Your task to perform on an android device: When is my next meeting? Image 0: 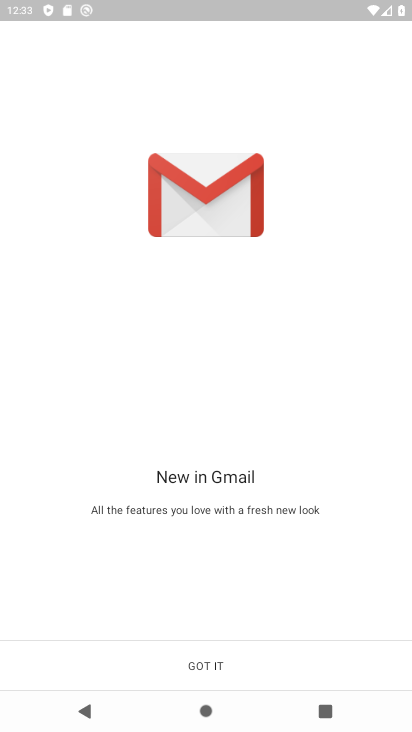
Step 0: drag from (0, 0) to (109, 5)
Your task to perform on an android device: When is my next meeting? Image 1: 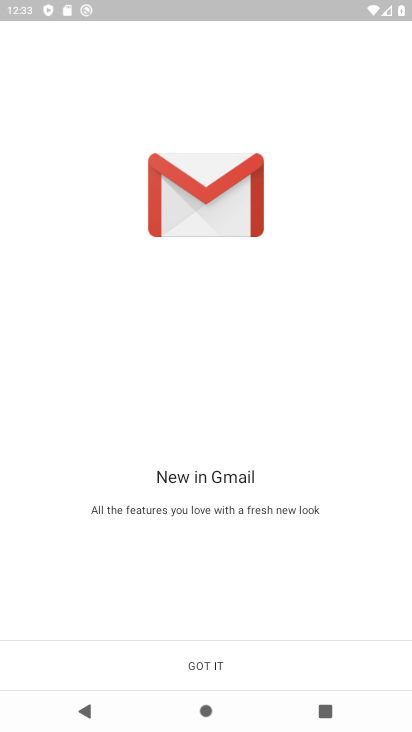
Step 1: press home button
Your task to perform on an android device: When is my next meeting? Image 2: 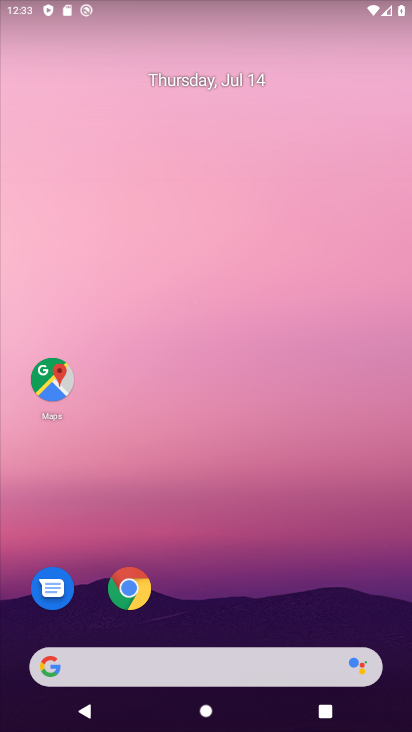
Step 2: drag from (241, 717) to (226, 296)
Your task to perform on an android device: When is my next meeting? Image 3: 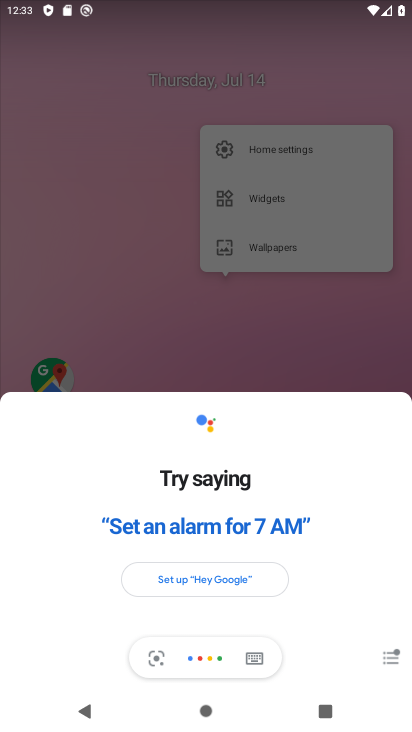
Step 3: click (263, 249)
Your task to perform on an android device: When is my next meeting? Image 4: 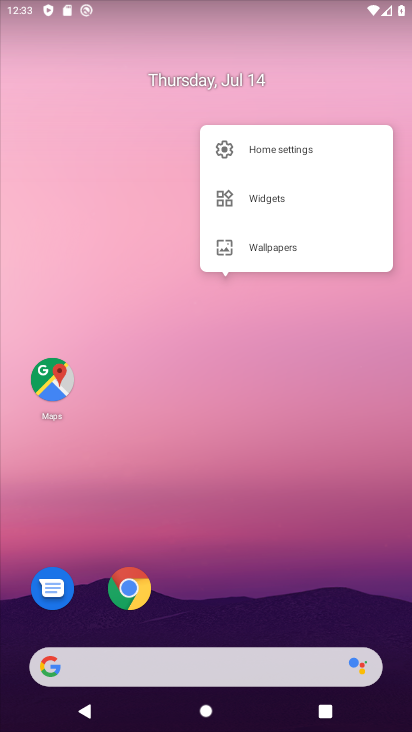
Step 4: drag from (259, 699) to (322, 39)
Your task to perform on an android device: When is my next meeting? Image 5: 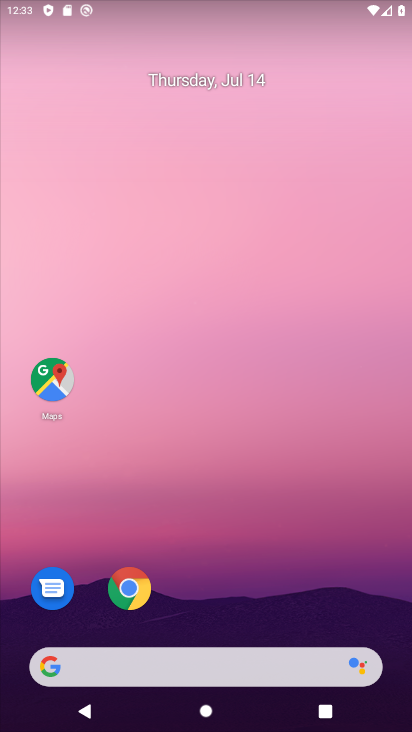
Step 5: drag from (253, 707) to (407, 112)
Your task to perform on an android device: When is my next meeting? Image 6: 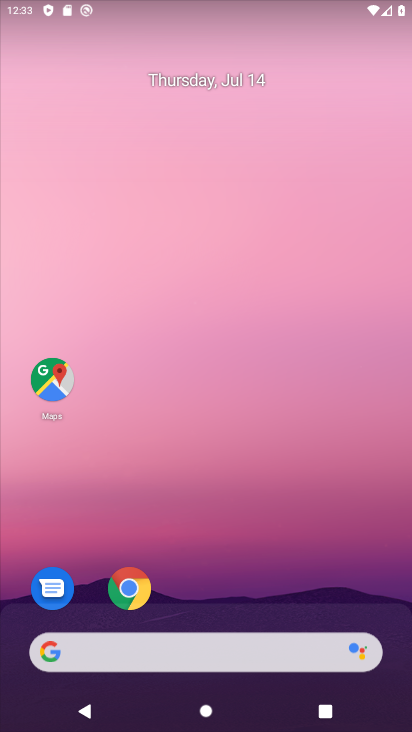
Step 6: drag from (262, 711) to (217, 26)
Your task to perform on an android device: When is my next meeting? Image 7: 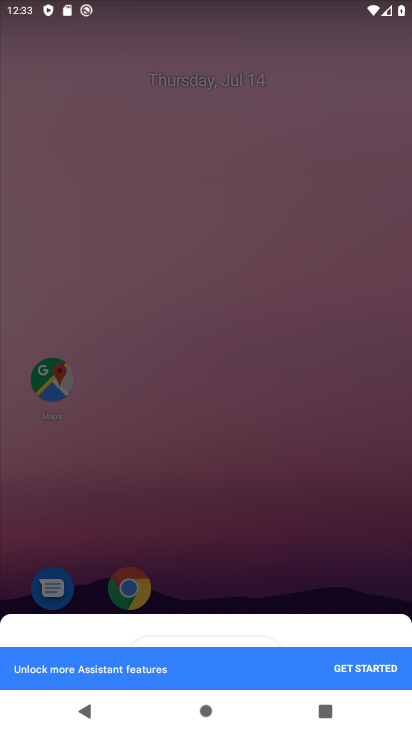
Step 7: press home button
Your task to perform on an android device: When is my next meeting? Image 8: 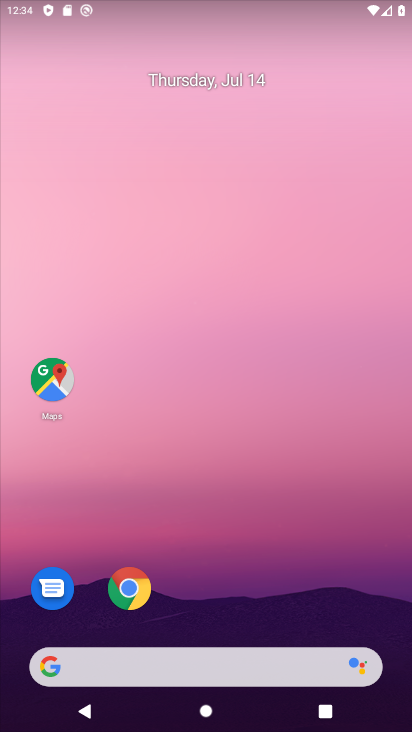
Step 8: drag from (249, 703) to (265, 68)
Your task to perform on an android device: When is my next meeting? Image 9: 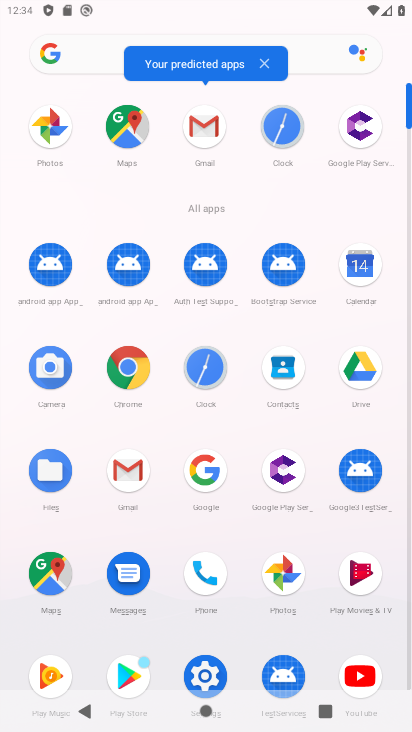
Step 9: click (366, 268)
Your task to perform on an android device: When is my next meeting? Image 10: 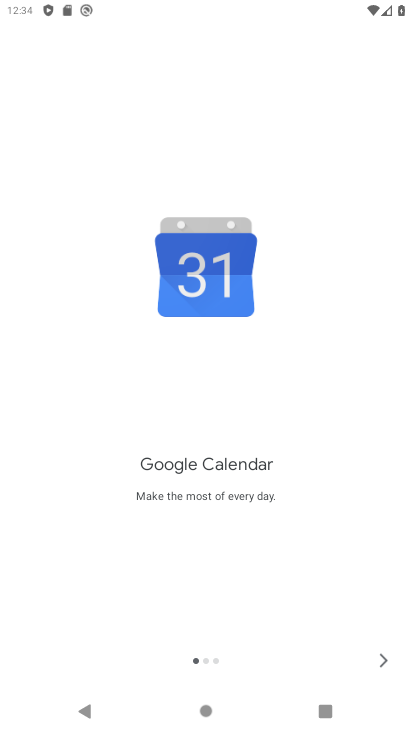
Step 10: click (383, 667)
Your task to perform on an android device: When is my next meeting? Image 11: 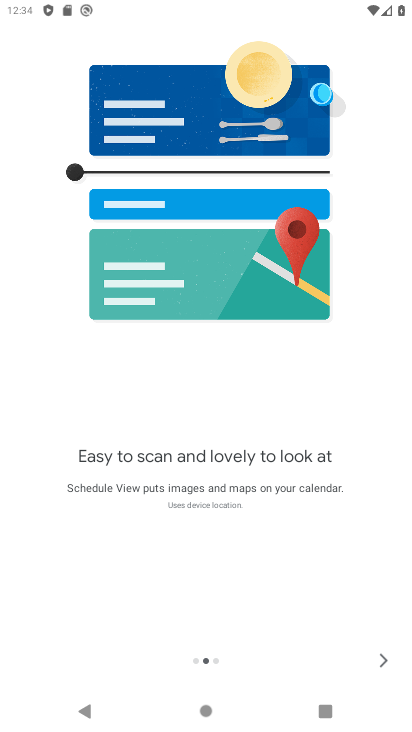
Step 11: click (383, 663)
Your task to perform on an android device: When is my next meeting? Image 12: 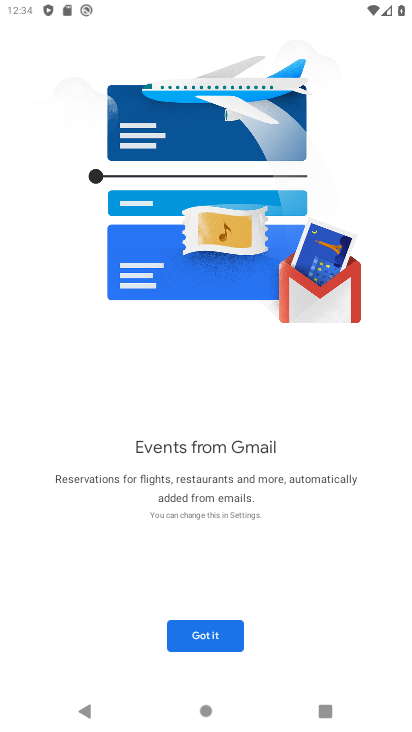
Step 12: click (230, 629)
Your task to perform on an android device: When is my next meeting? Image 13: 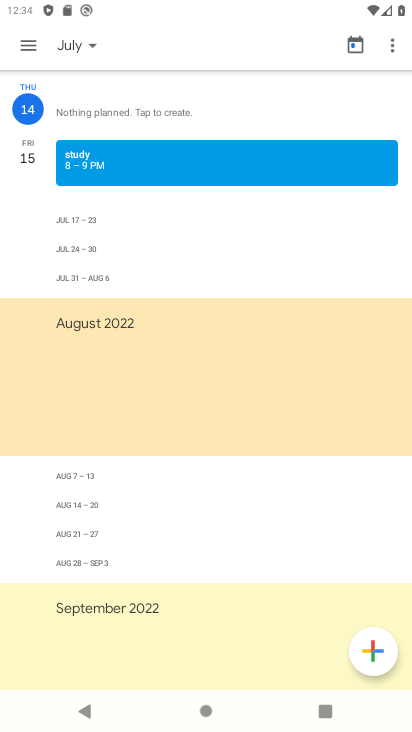
Step 13: click (360, 45)
Your task to perform on an android device: When is my next meeting? Image 14: 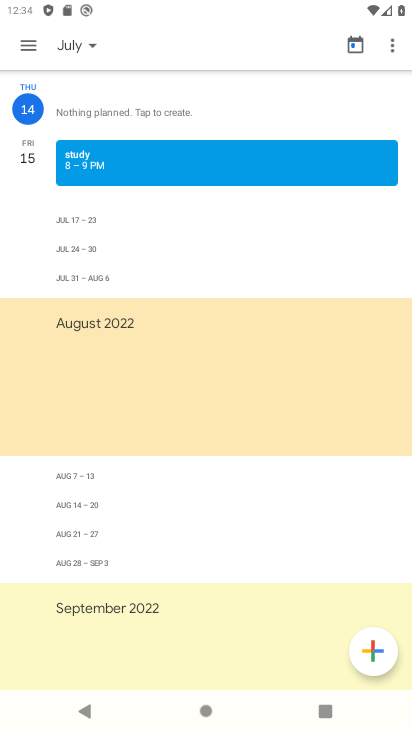
Step 14: click (36, 49)
Your task to perform on an android device: When is my next meeting? Image 15: 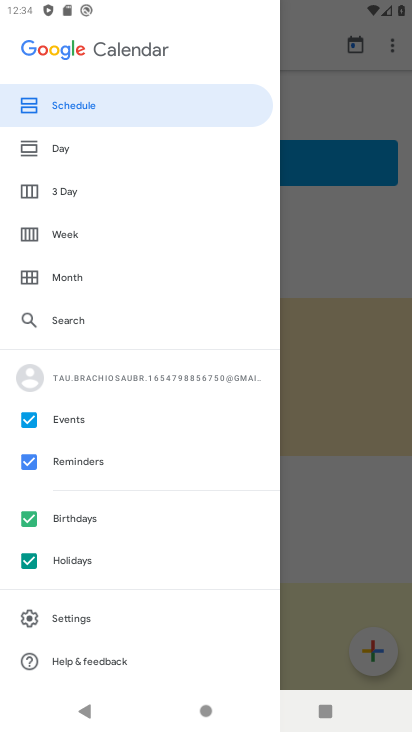
Step 15: click (68, 112)
Your task to perform on an android device: When is my next meeting? Image 16: 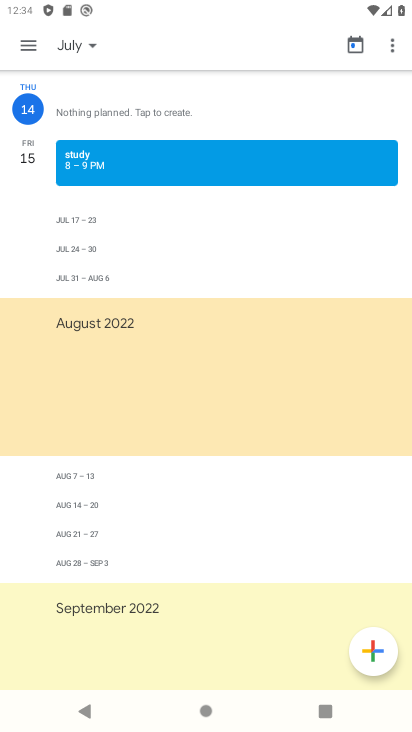
Step 16: task complete